Your task to perform on an android device: Open privacy settings Image 0: 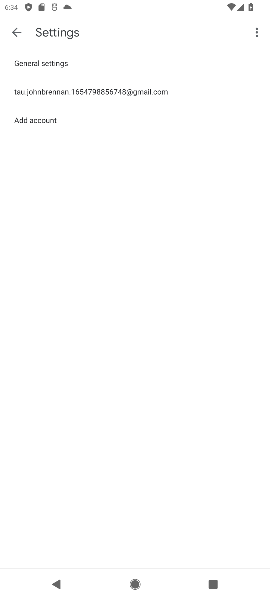
Step 0: press home button
Your task to perform on an android device: Open privacy settings Image 1: 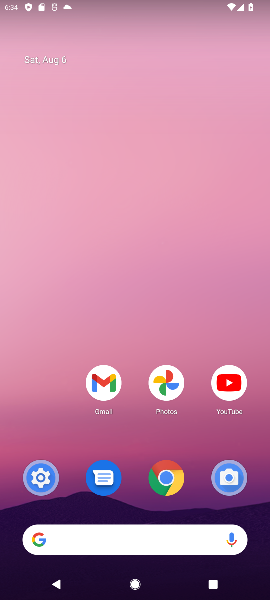
Step 1: click (28, 474)
Your task to perform on an android device: Open privacy settings Image 2: 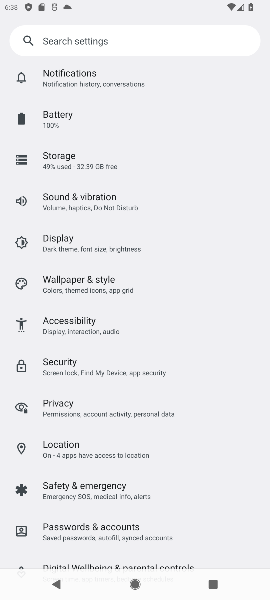
Step 2: click (119, 407)
Your task to perform on an android device: Open privacy settings Image 3: 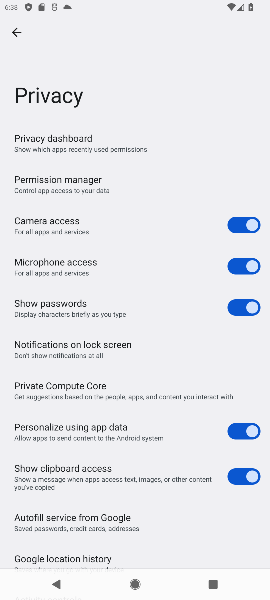
Step 3: task complete